Your task to perform on an android device: turn on improve location accuracy Image 0: 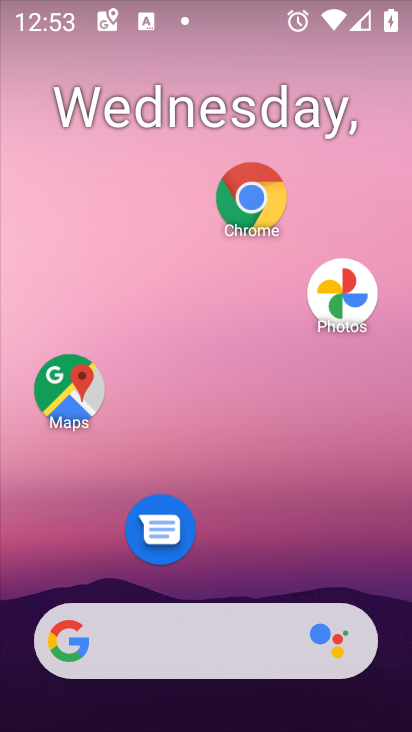
Step 0: drag from (295, 547) to (300, 151)
Your task to perform on an android device: turn on improve location accuracy Image 1: 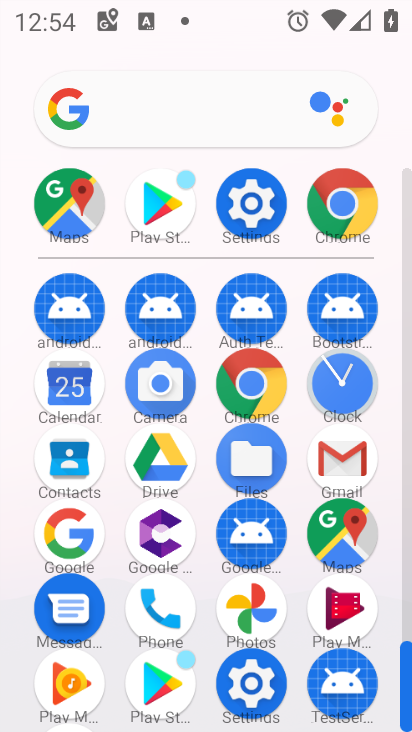
Step 1: click (266, 204)
Your task to perform on an android device: turn on improve location accuracy Image 2: 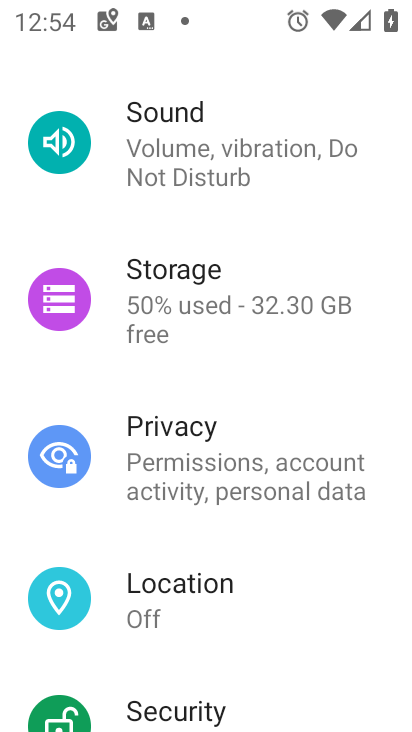
Step 2: click (157, 584)
Your task to perform on an android device: turn on improve location accuracy Image 3: 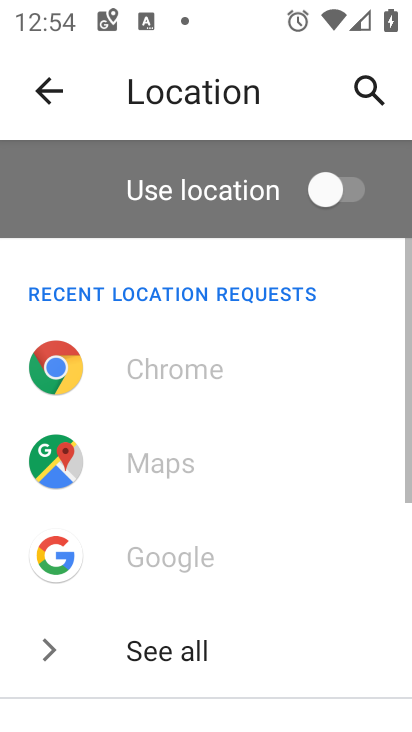
Step 3: drag from (157, 584) to (171, 426)
Your task to perform on an android device: turn on improve location accuracy Image 4: 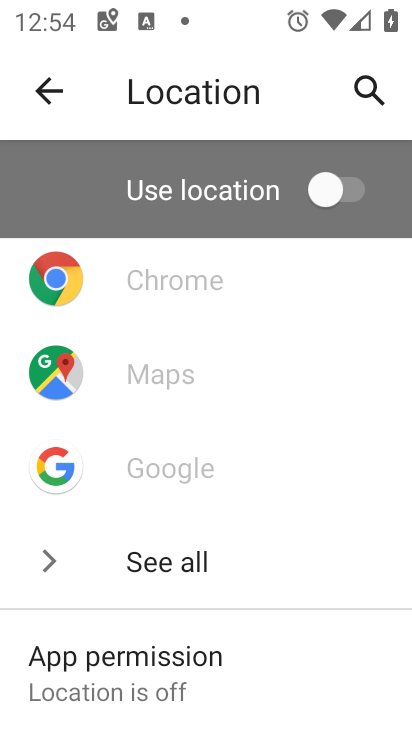
Step 4: drag from (183, 492) to (237, 172)
Your task to perform on an android device: turn on improve location accuracy Image 5: 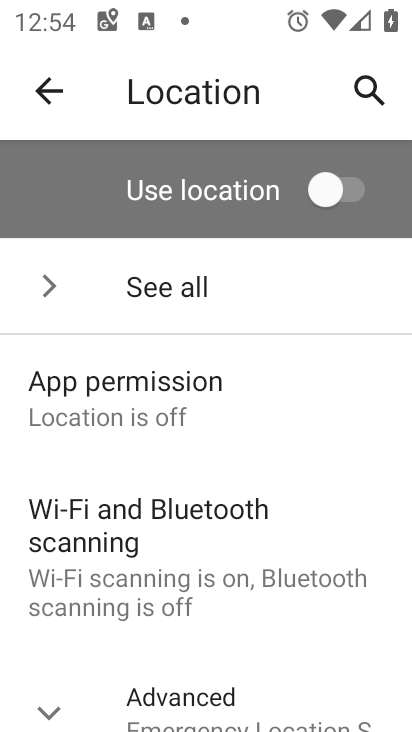
Step 5: drag from (213, 601) to (225, 412)
Your task to perform on an android device: turn on improve location accuracy Image 6: 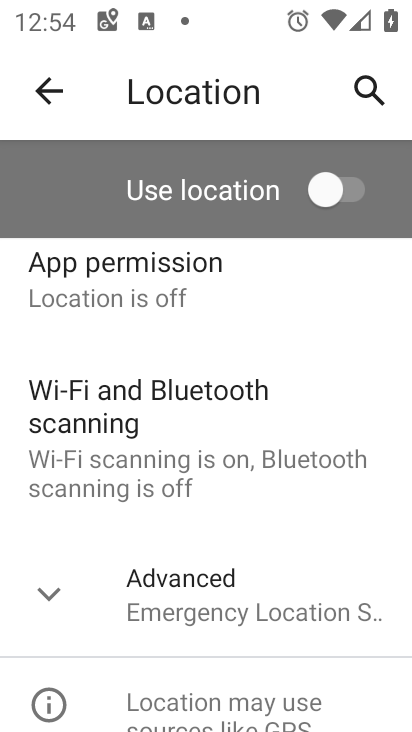
Step 6: click (205, 631)
Your task to perform on an android device: turn on improve location accuracy Image 7: 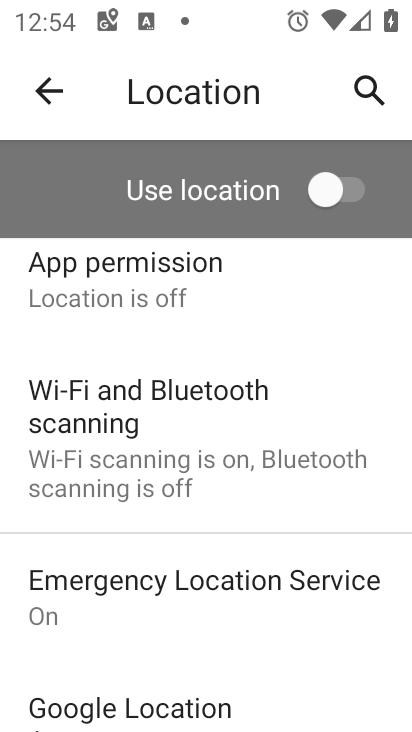
Step 7: drag from (224, 571) to (238, 179)
Your task to perform on an android device: turn on improve location accuracy Image 8: 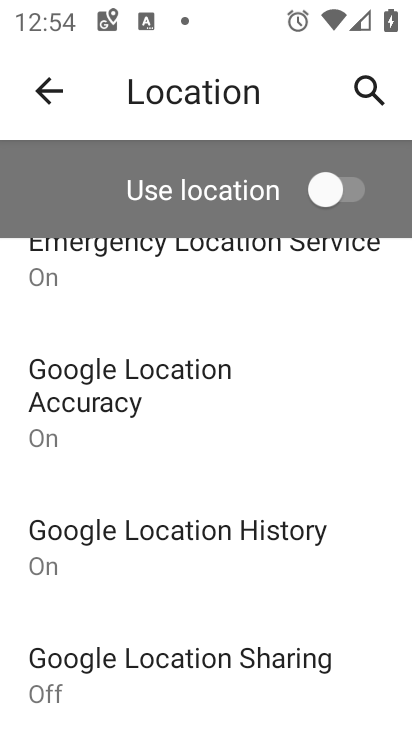
Step 8: click (204, 391)
Your task to perform on an android device: turn on improve location accuracy Image 9: 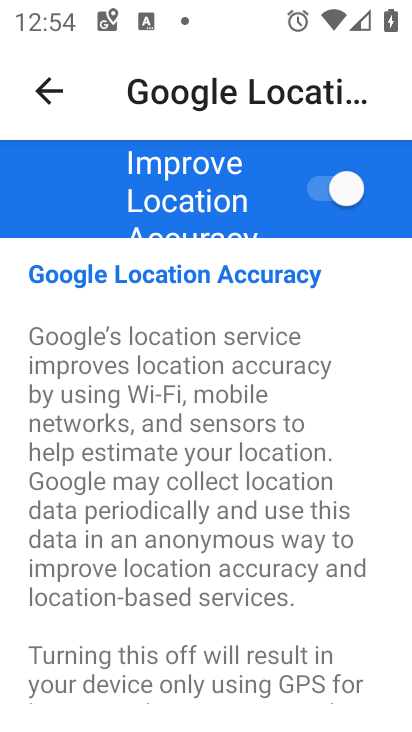
Step 9: task complete